Your task to perform on an android device: toggle pop-ups in chrome Image 0: 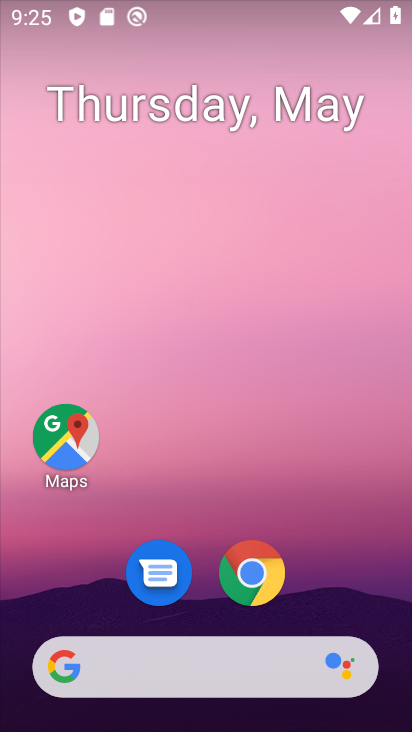
Step 0: click (262, 576)
Your task to perform on an android device: toggle pop-ups in chrome Image 1: 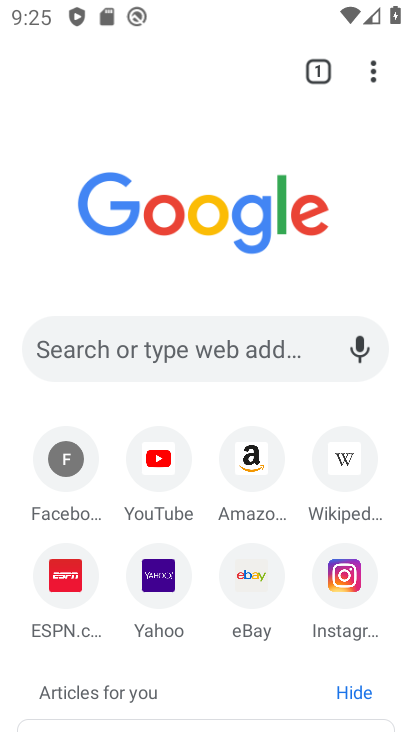
Step 1: click (381, 76)
Your task to perform on an android device: toggle pop-ups in chrome Image 2: 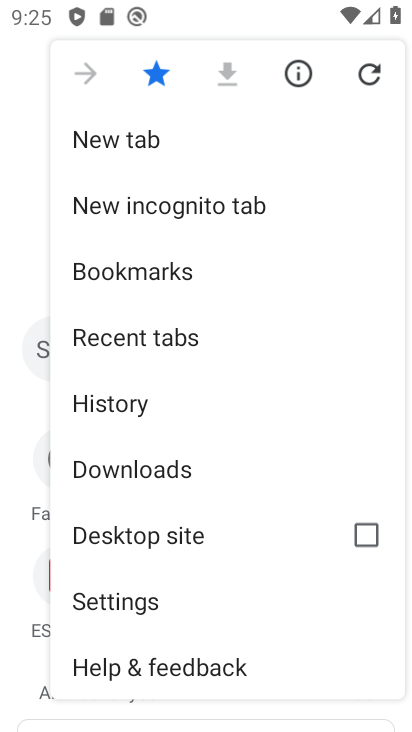
Step 2: click (205, 601)
Your task to perform on an android device: toggle pop-ups in chrome Image 3: 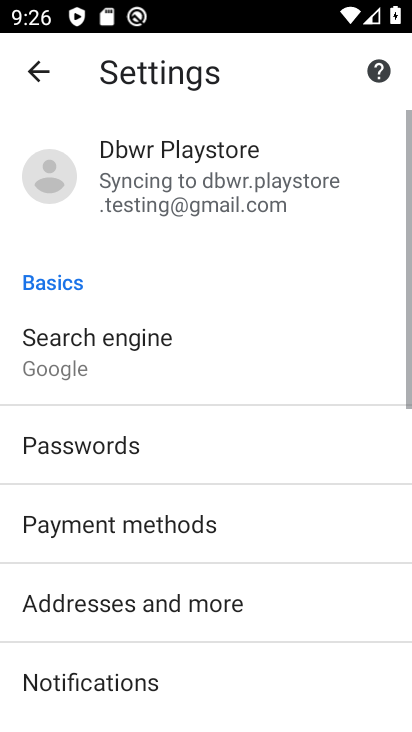
Step 3: drag from (231, 584) to (249, 258)
Your task to perform on an android device: toggle pop-ups in chrome Image 4: 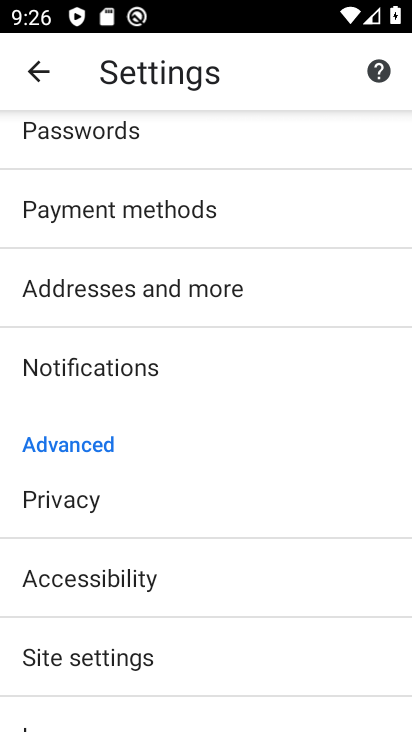
Step 4: drag from (228, 651) to (229, 408)
Your task to perform on an android device: toggle pop-ups in chrome Image 5: 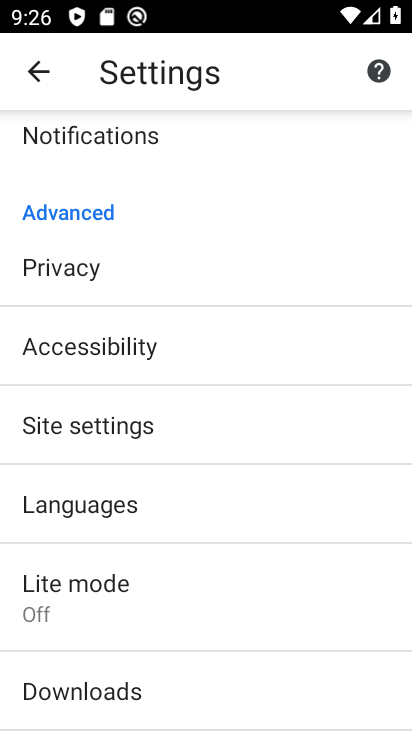
Step 5: click (171, 428)
Your task to perform on an android device: toggle pop-ups in chrome Image 6: 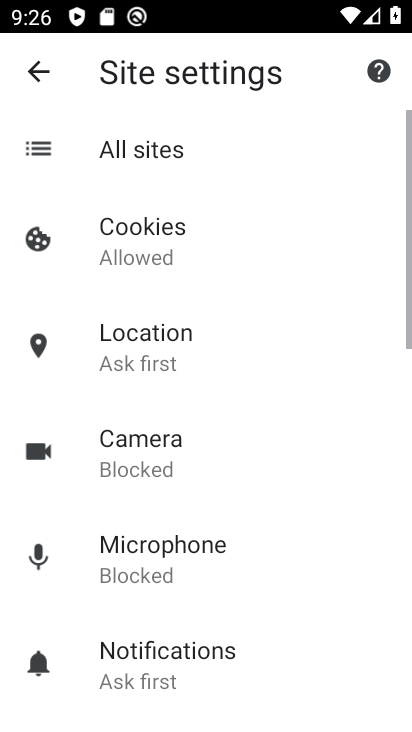
Step 6: drag from (221, 565) to (239, 256)
Your task to perform on an android device: toggle pop-ups in chrome Image 7: 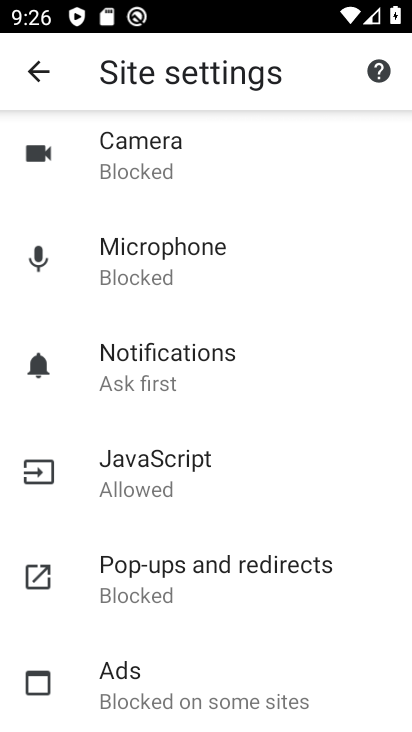
Step 7: click (192, 566)
Your task to perform on an android device: toggle pop-ups in chrome Image 8: 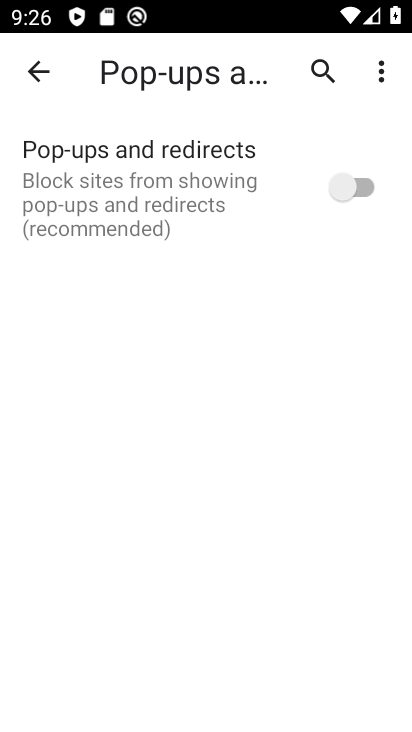
Step 8: click (364, 181)
Your task to perform on an android device: toggle pop-ups in chrome Image 9: 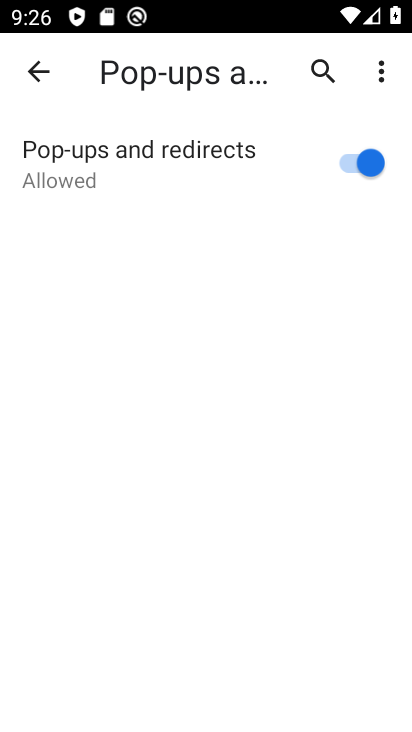
Step 9: task complete